Your task to perform on an android device: check storage Image 0: 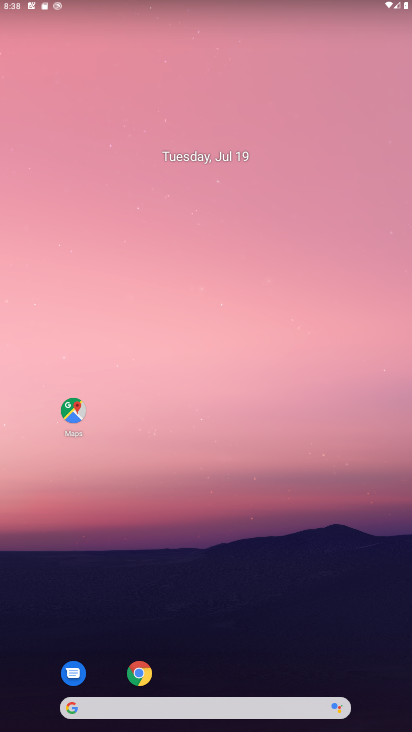
Step 0: drag from (358, 663) to (332, 92)
Your task to perform on an android device: check storage Image 1: 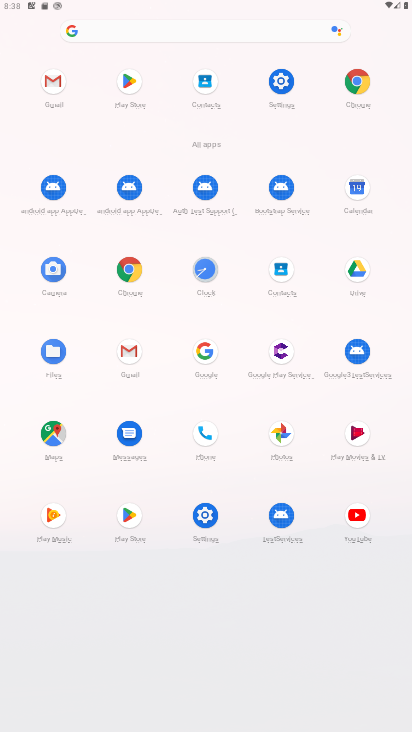
Step 1: click (204, 515)
Your task to perform on an android device: check storage Image 2: 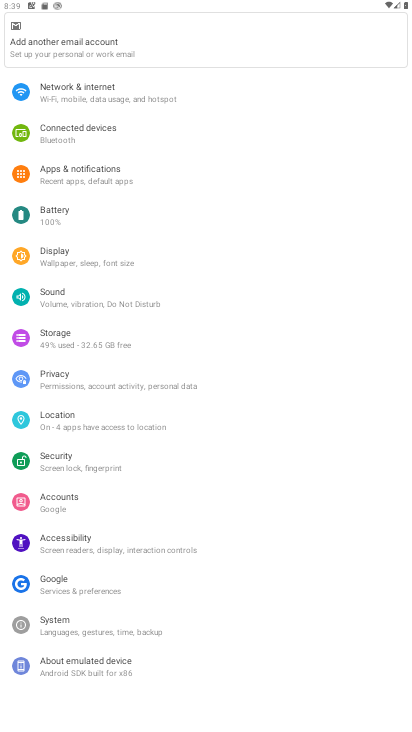
Step 2: click (51, 337)
Your task to perform on an android device: check storage Image 3: 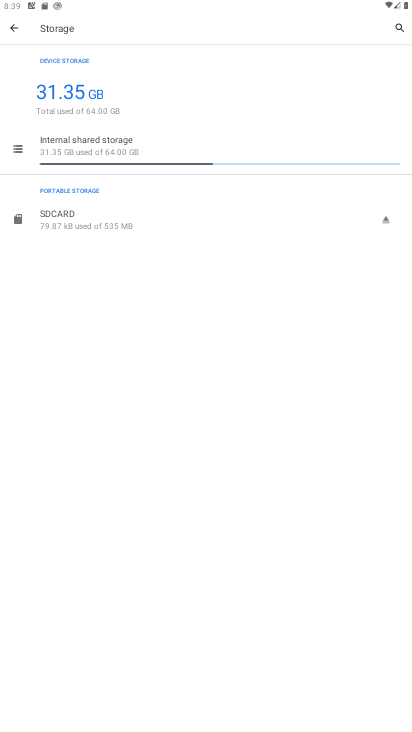
Step 3: task complete